Your task to perform on an android device: Open wifi settings Image 0: 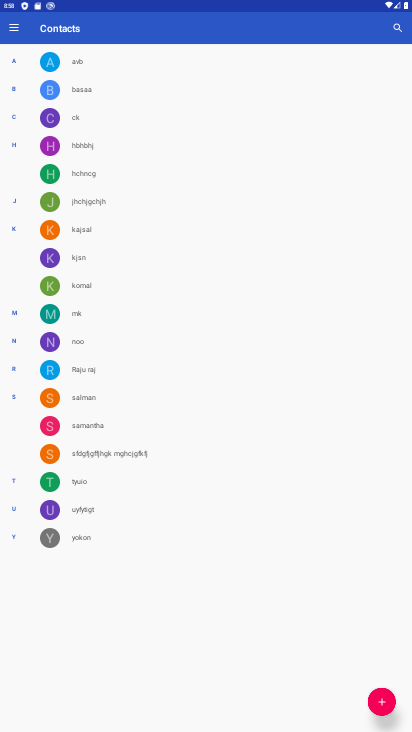
Step 0: press home button
Your task to perform on an android device: Open wifi settings Image 1: 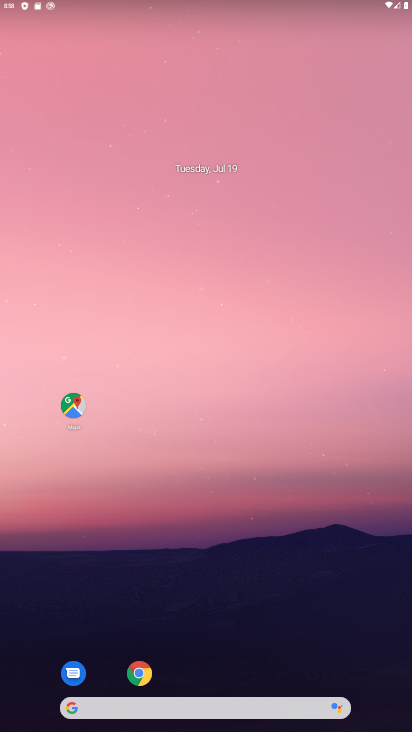
Step 1: drag from (211, 655) to (214, 55)
Your task to perform on an android device: Open wifi settings Image 2: 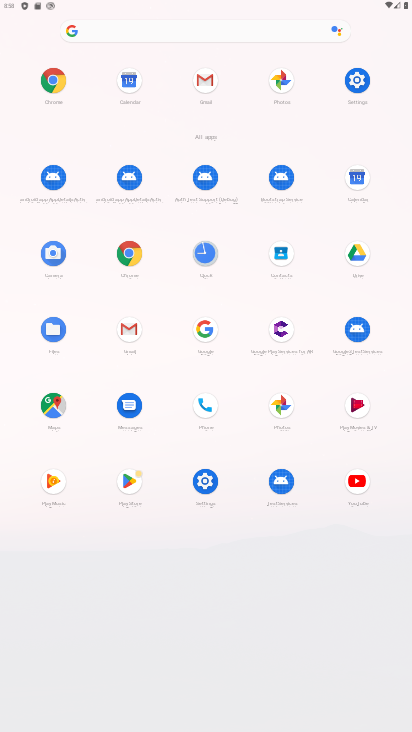
Step 2: click (346, 81)
Your task to perform on an android device: Open wifi settings Image 3: 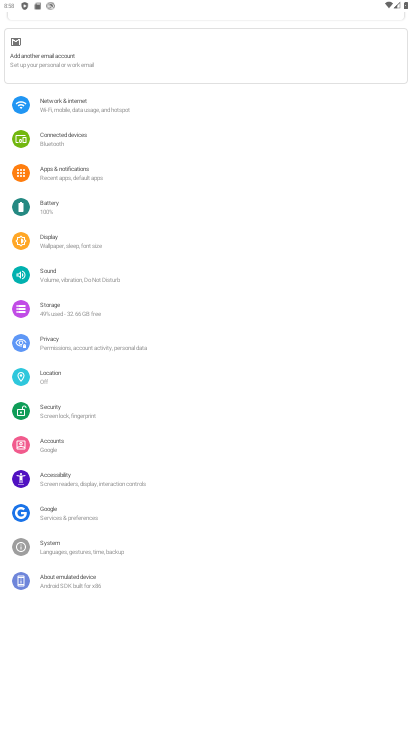
Step 3: click (54, 101)
Your task to perform on an android device: Open wifi settings Image 4: 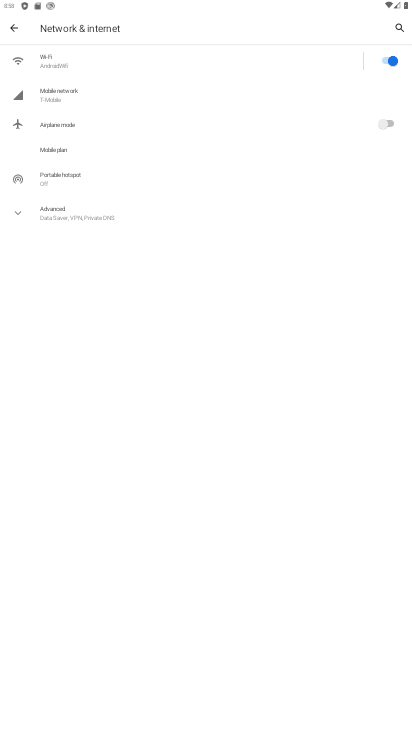
Step 4: click (128, 64)
Your task to perform on an android device: Open wifi settings Image 5: 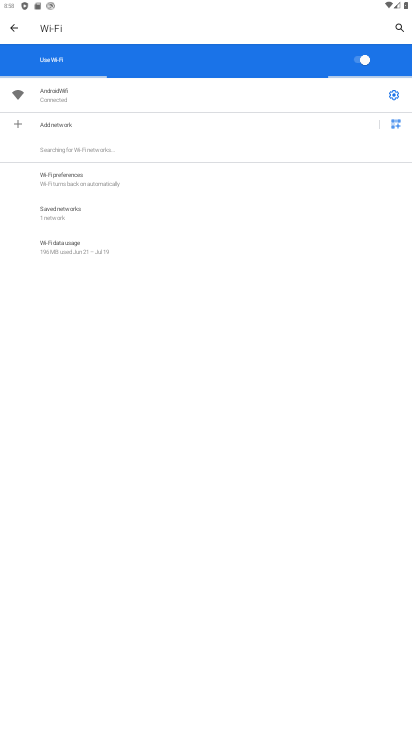
Step 5: task complete